Your task to perform on an android device: What's the weather today? Image 0: 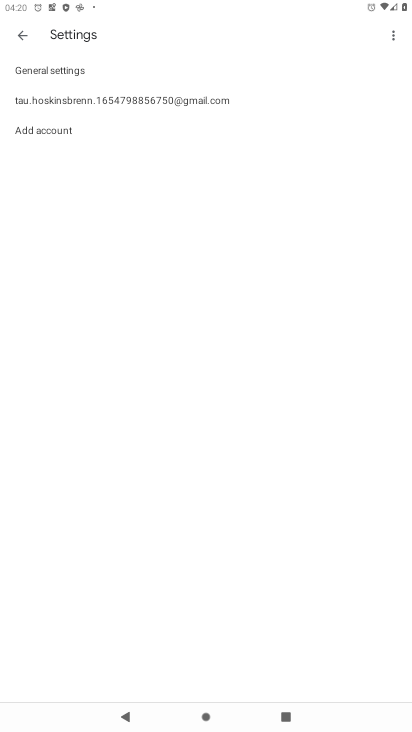
Step 0: press home button
Your task to perform on an android device: What's the weather today? Image 1: 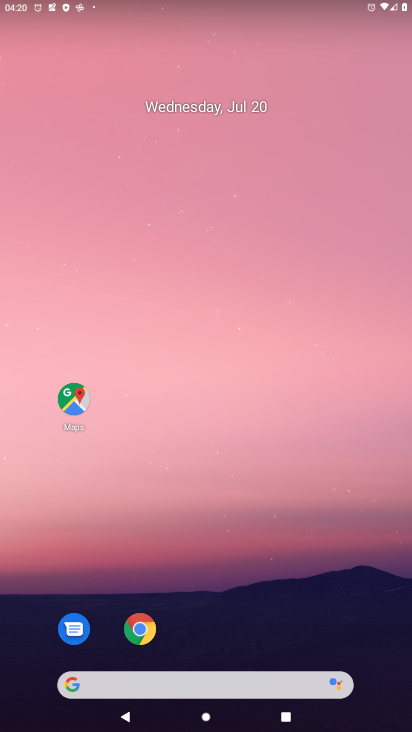
Step 1: drag from (10, 279) to (405, 288)
Your task to perform on an android device: What's the weather today? Image 2: 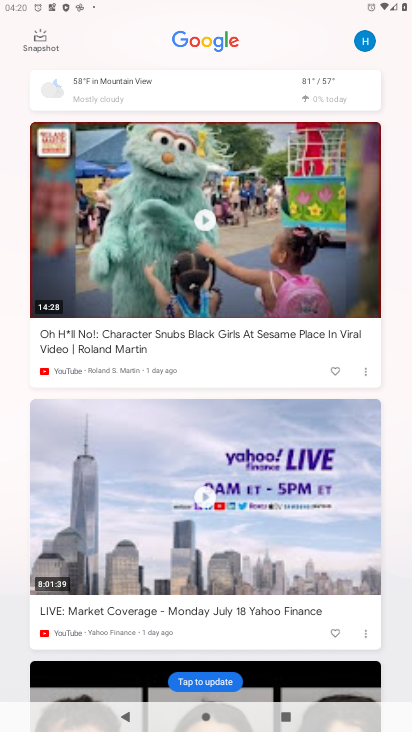
Step 2: click (304, 79)
Your task to perform on an android device: What's the weather today? Image 3: 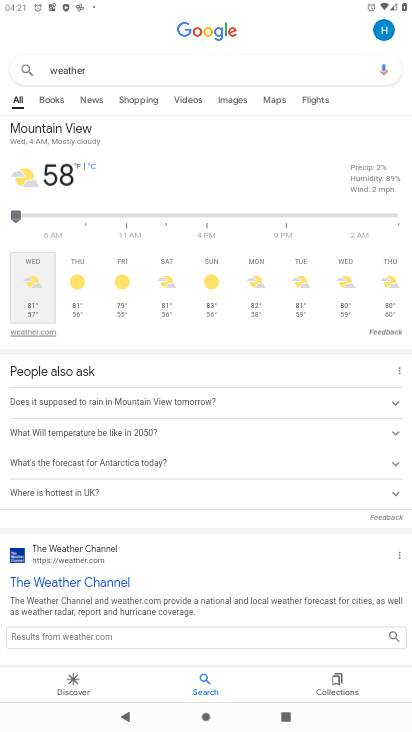
Step 3: task complete